Your task to perform on an android device: Show the shopping cart on bestbuy. Add "razer blade" to the cart on bestbuy Image 0: 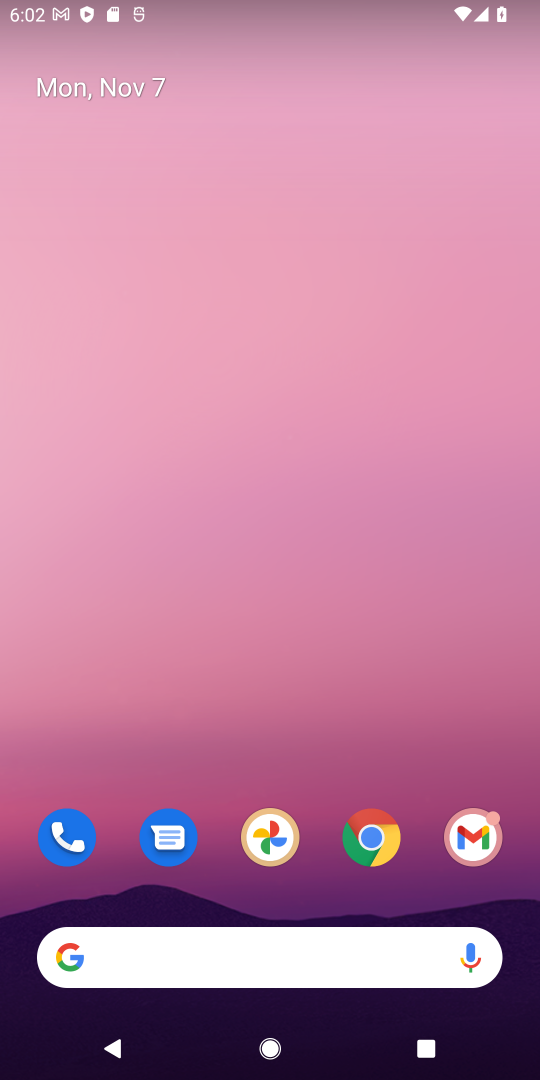
Step 0: click (389, 840)
Your task to perform on an android device: Show the shopping cart on bestbuy. Add "razer blade" to the cart on bestbuy Image 1: 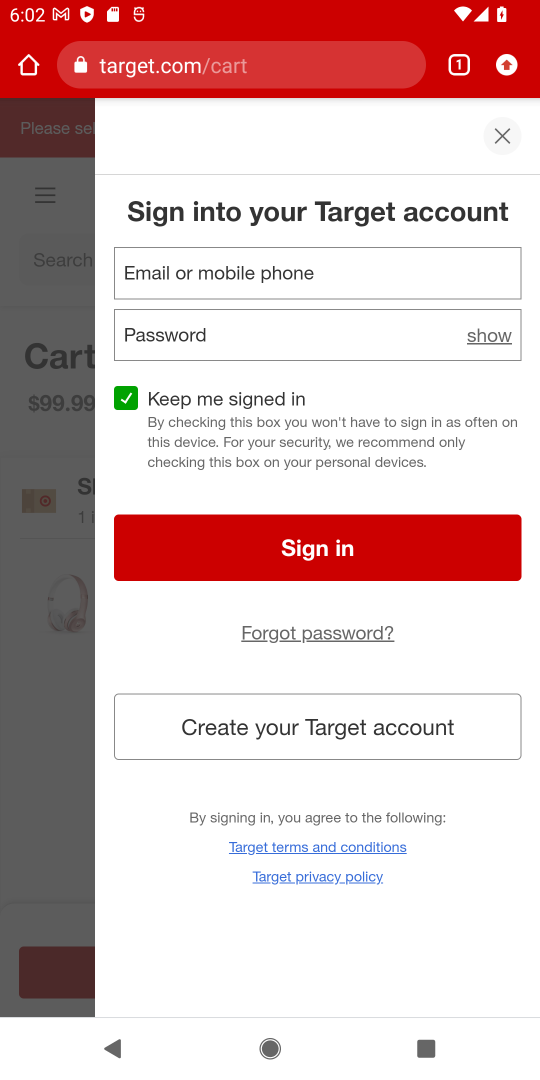
Step 1: click (243, 75)
Your task to perform on an android device: Show the shopping cart on bestbuy. Add "razer blade" to the cart on bestbuy Image 2: 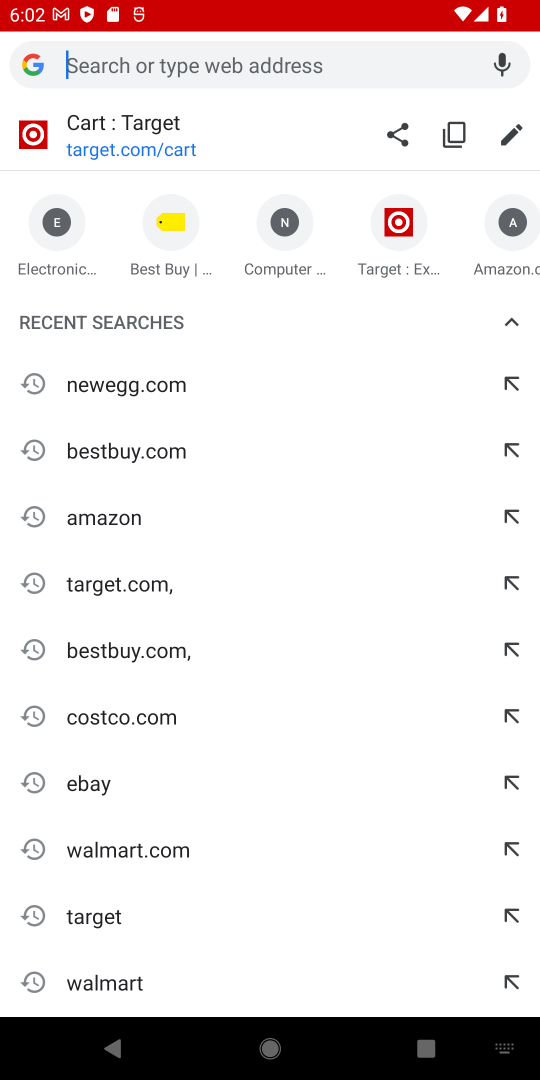
Step 2: type "bestbuy.com"
Your task to perform on an android device: Show the shopping cart on bestbuy. Add "razer blade" to the cart on bestbuy Image 3: 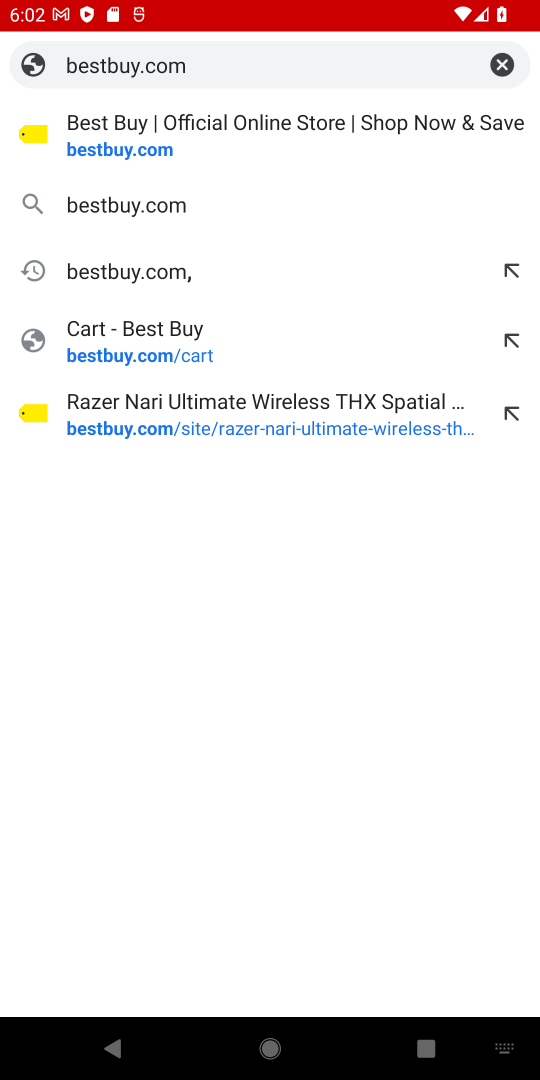
Step 3: click (211, 145)
Your task to perform on an android device: Show the shopping cart on bestbuy. Add "razer blade" to the cart on bestbuy Image 4: 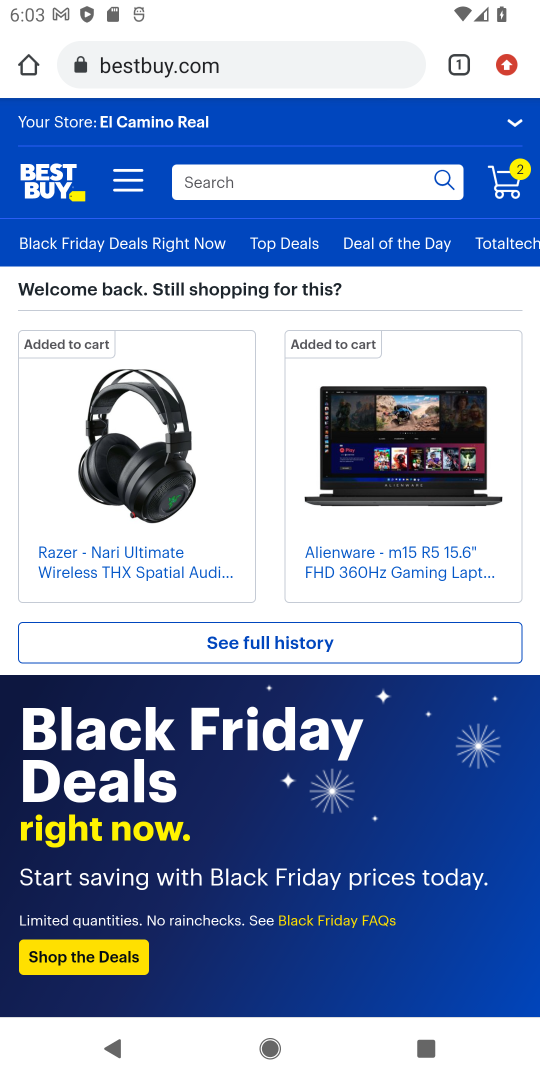
Step 4: click (334, 182)
Your task to perform on an android device: Show the shopping cart on bestbuy. Add "razer blade" to the cart on bestbuy Image 5: 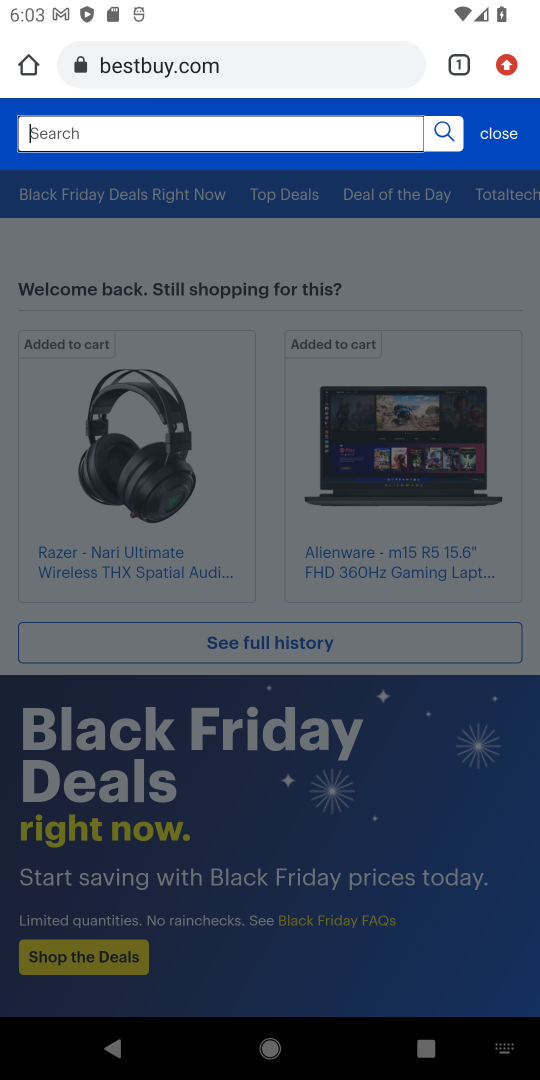
Step 5: type "razer blade"
Your task to perform on an android device: Show the shopping cart on bestbuy. Add "razer blade" to the cart on bestbuy Image 6: 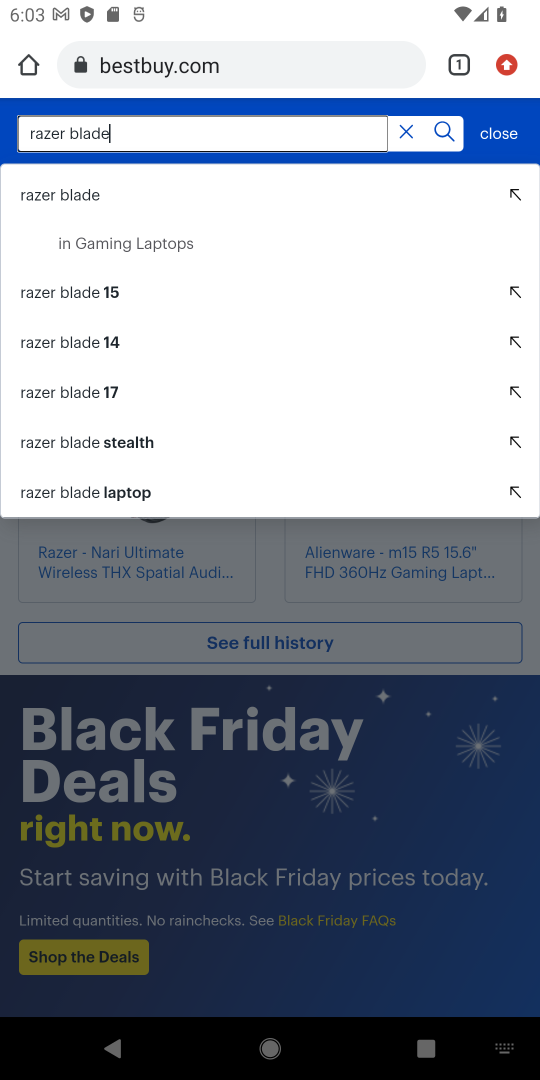
Step 6: click (75, 201)
Your task to perform on an android device: Show the shopping cart on bestbuy. Add "razer blade" to the cart on bestbuy Image 7: 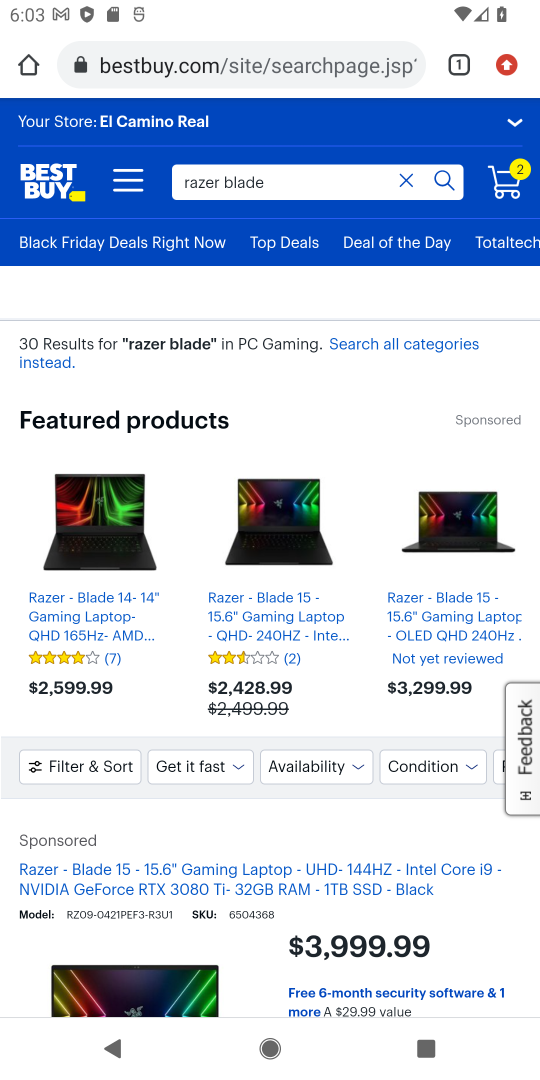
Step 7: click (160, 958)
Your task to perform on an android device: Show the shopping cart on bestbuy. Add "razer blade" to the cart on bestbuy Image 8: 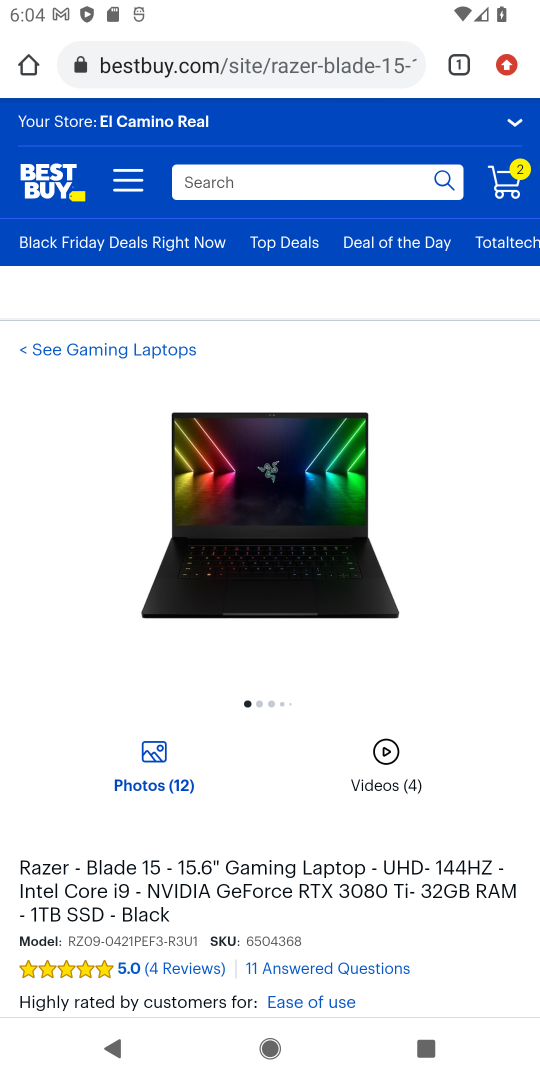
Step 8: drag from (193, 883) to (135, 268)
Your task to perform on an android device: Show the shopping cart on bestbuy. Add "razer blade" to the cart on bestbuy Image 9: 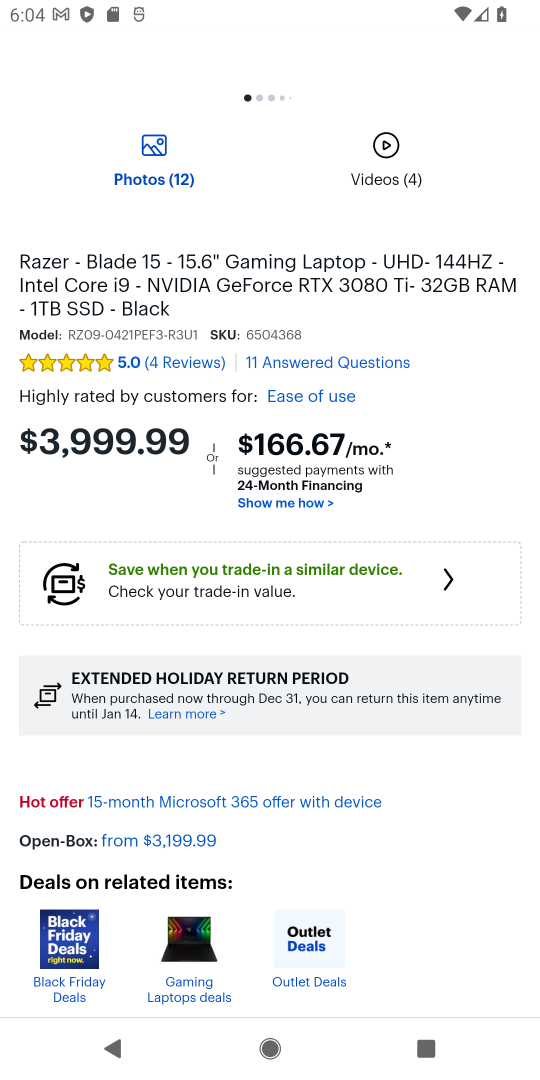
Step 9: drag from (237, 747) to (158, 156)
Your task to perform on an android device: Show the shopping cart on bestbuy. Add "razer blade" to the cart on bestbuy Image 10: 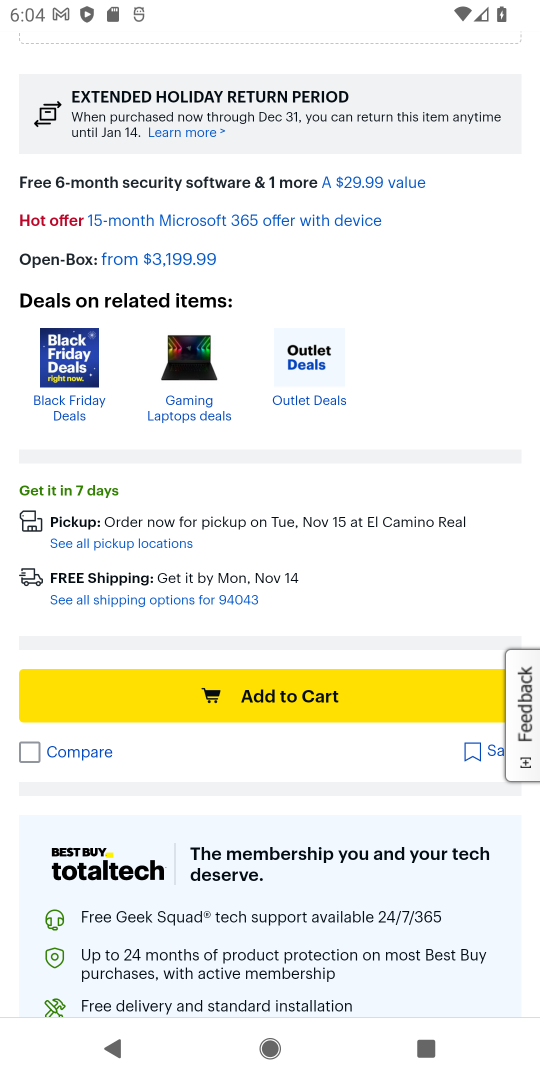
Step 10: click (251, 705)
Your task to perform on an android device: Show the shopping cart on bestbuy. Add "razer blade" to the cart on bestbuy Image 11: 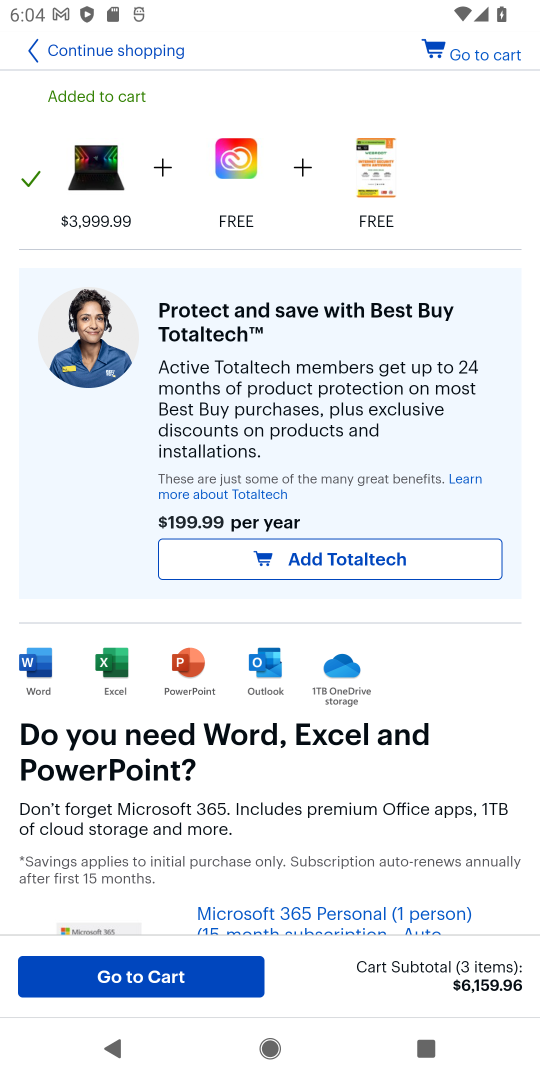
Step 11: click (190, 989)
Your task to perform on an android device: Show the shopping cart on bestbuy. Add "razer blade" to the cart on bestbuy Image 12: 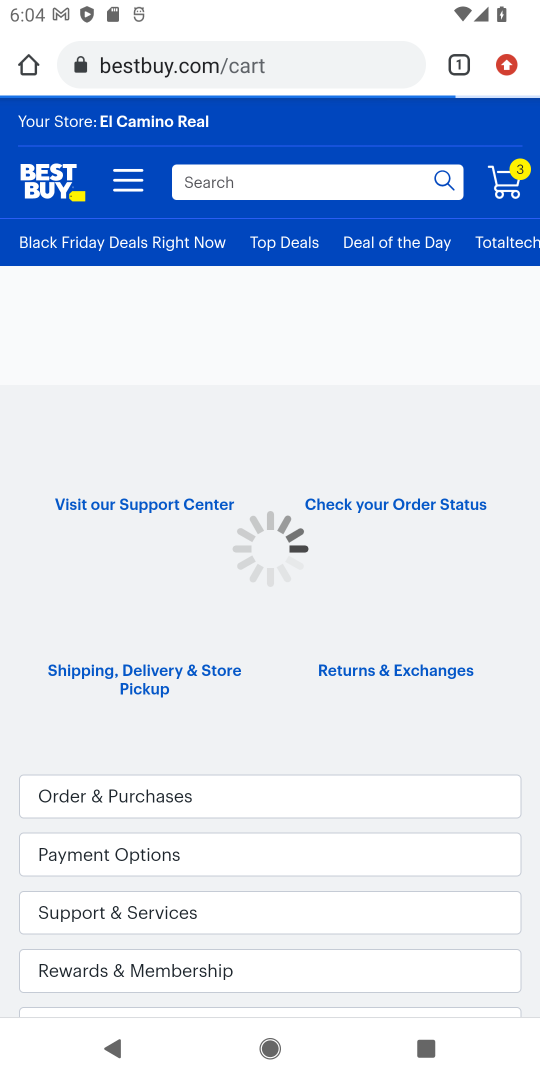
Step 12: task complete